Your task to perform on an android device: change text size in settings app Image 0: 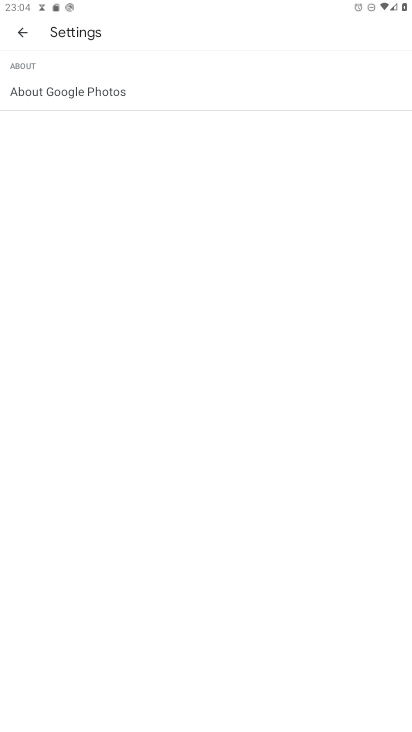
Step 0: press home button
Your task to perform on an android device: change text size in settings app Image 1: 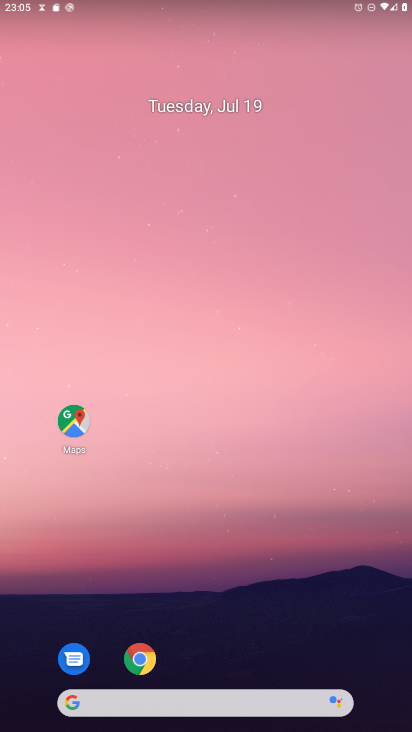
Step 1: drag from (155, 593) to (214, 141)
Your task to perform on an android device: change text size in settings app Image 2: 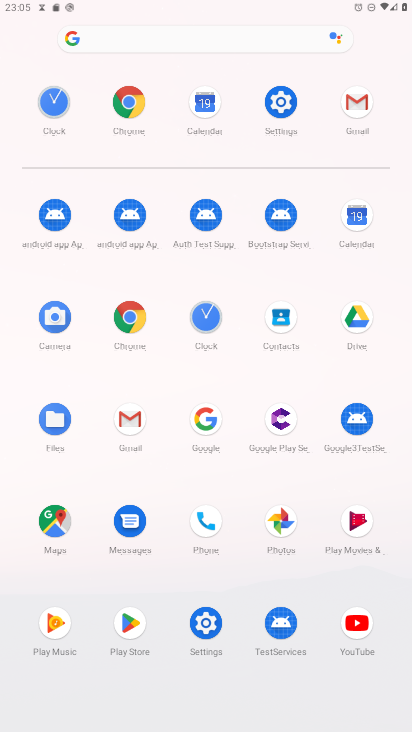
Step 2: click (279, 103)
Your task to perform on an android device: change text size in settings app Image 3: 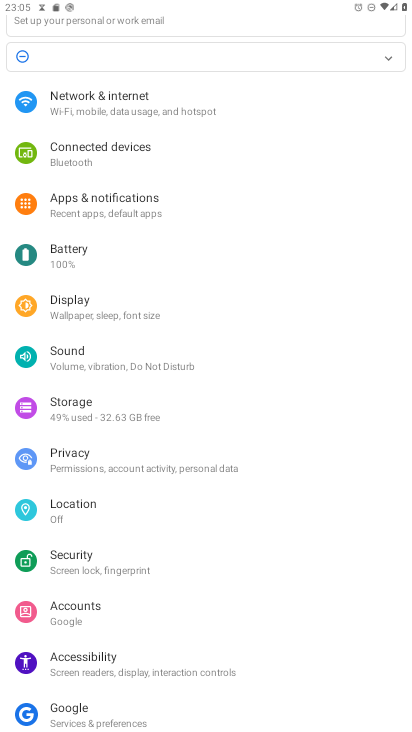
Step 3: drag from (111, 663) to (125, 419)
Your task to perform on an android device: change text size in settings app Image 4: 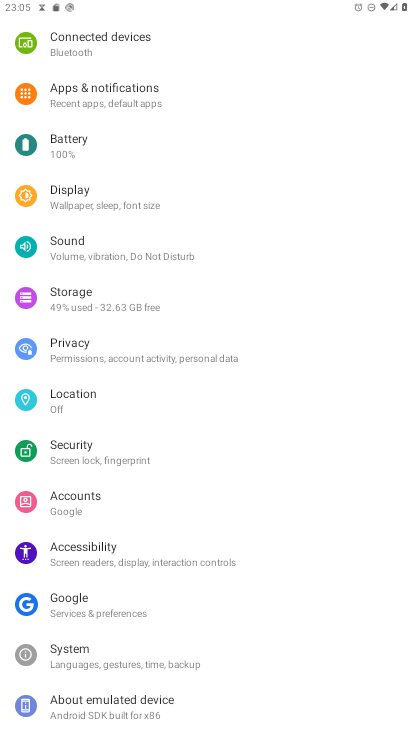
Step 4: click (112, 668)
Your task to perform on an android device: change text size in settings app Image 5: 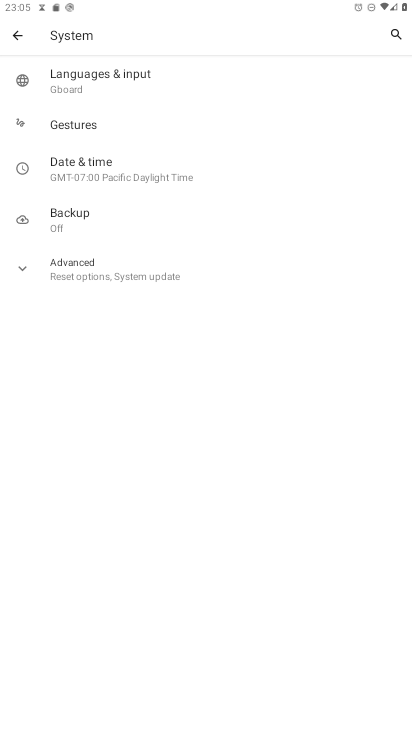
Step 5: click (7, 24)
Your task to perform on an android device: change text size in settings app Image 6: 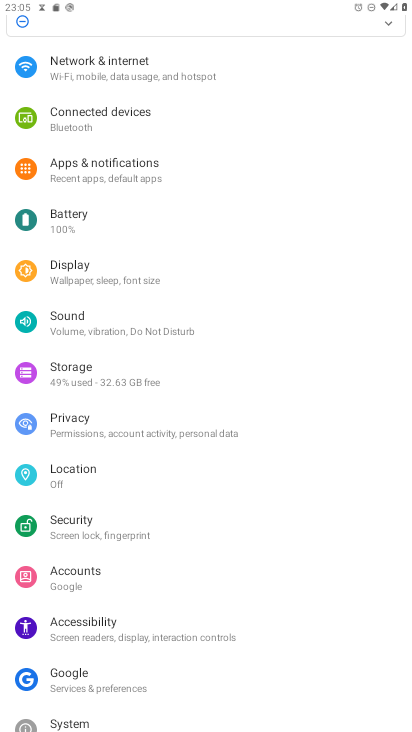
Step 6: drag from (93, 565) to (110, 215)
Your task to perform on an android device: change text size in settings app Image 7: 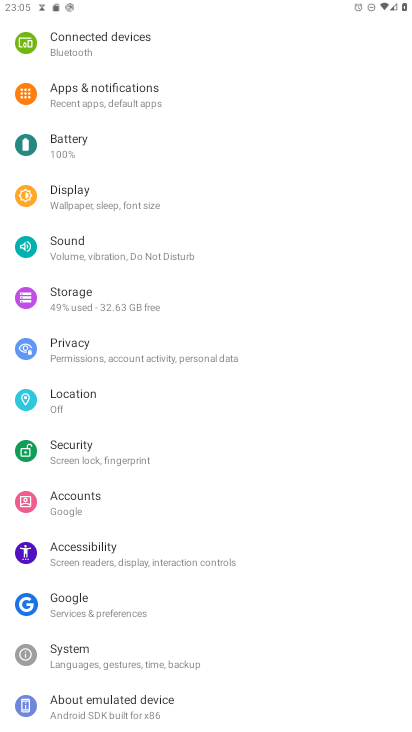
Step 7: click (122, 564)
Your task to perform on an android device: change text size in settings app Image 8: 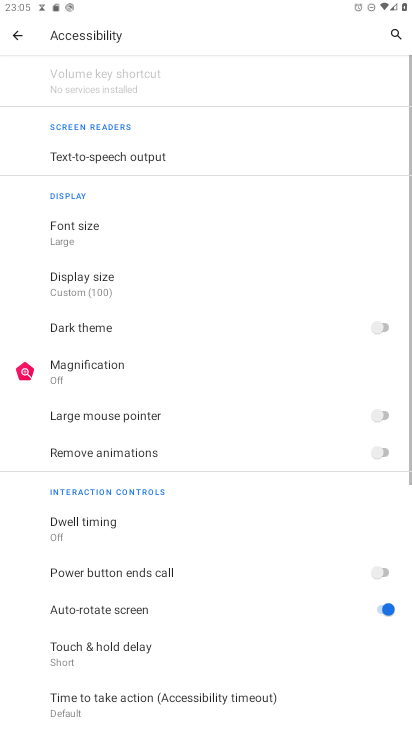
Step 8: click (81, 224)
Your task to perform on an android device: change text size in settings app Image 9: 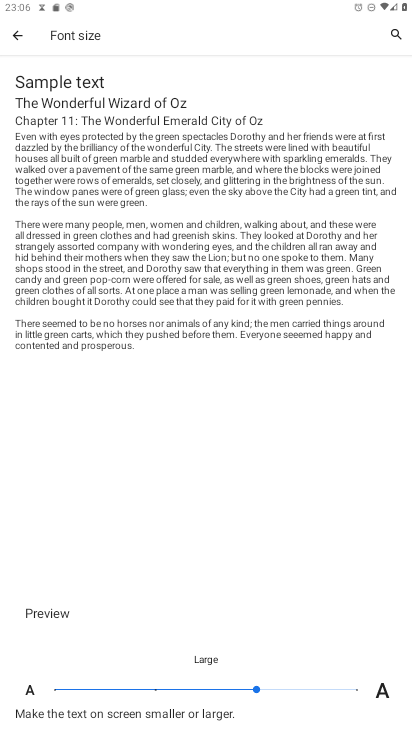
Step 9: click (336, 685)
Your task to perform on an android device: change text size in settings app Image 10: 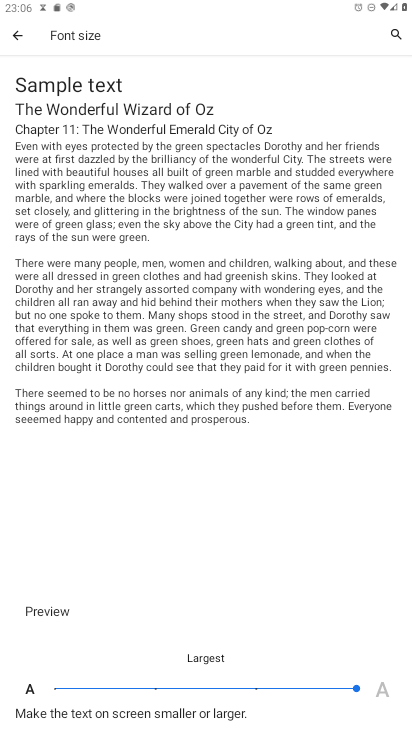
Step 10: task complete